Your task to perform on an android device: empty trash in google photos Image 0: 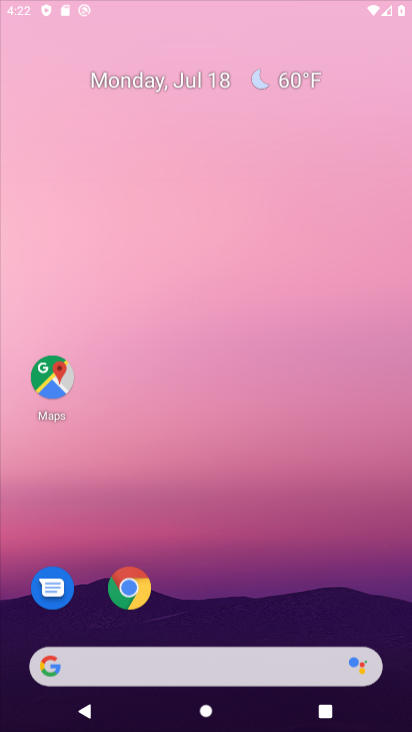
Step 0: press home button
Your task to perform on an android device: empty trash in google photos Image 1: 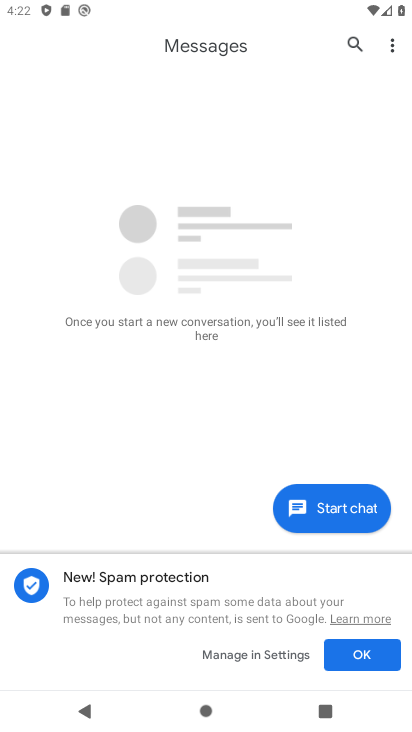
Step 1: drag from (199, 580) to (179, 57)
Your task to perform on an android device: empty trash in google photos Image 2: 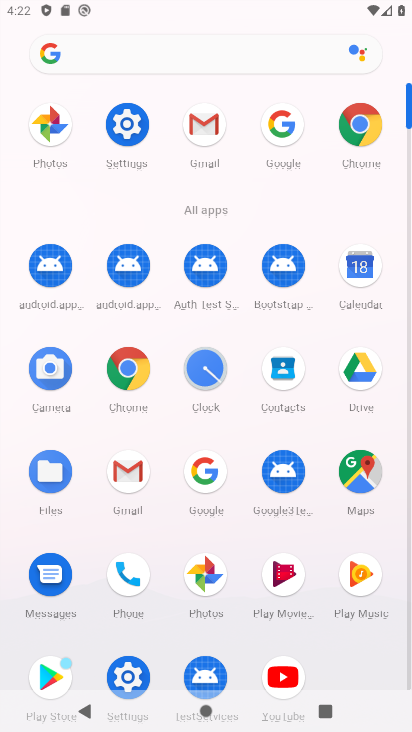
Step 2: click (205, 562)
Your task to perform on an android device: empty trash in google photos Image 3: 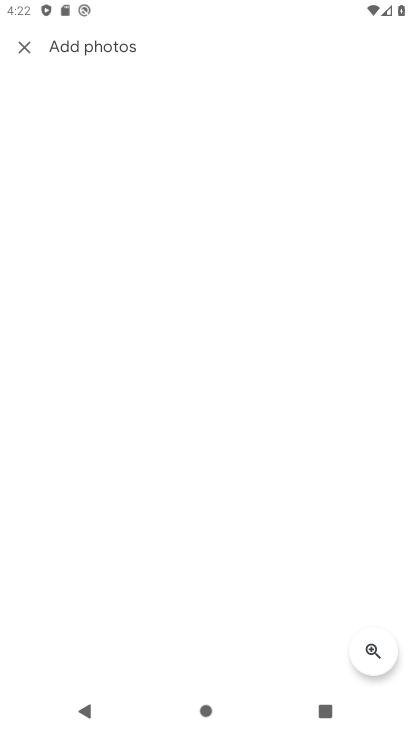
Step 3: click (24, 49)
Your task to perform on an android device: empty trash in google photos Image 4: 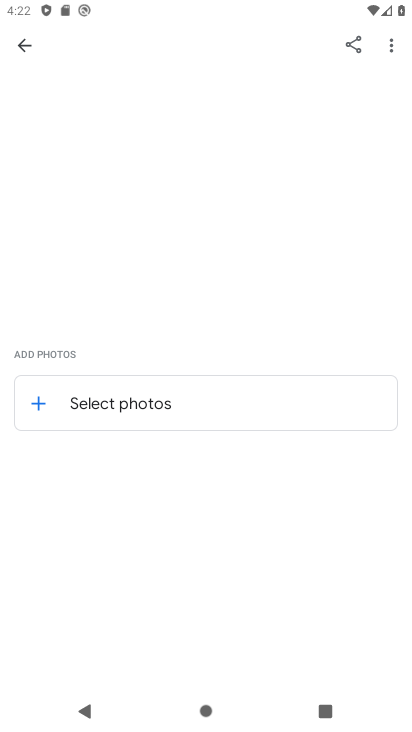
Step 4: click (25, 47)
Your task to perform on an android device: empty trash in google photos Image 5: 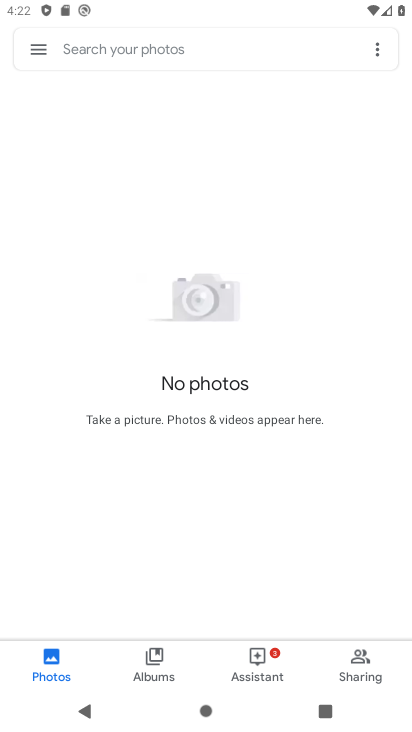
Step 5: click (37, 54)
Your task to perform on an android device: empty trash in google photos Image 6: 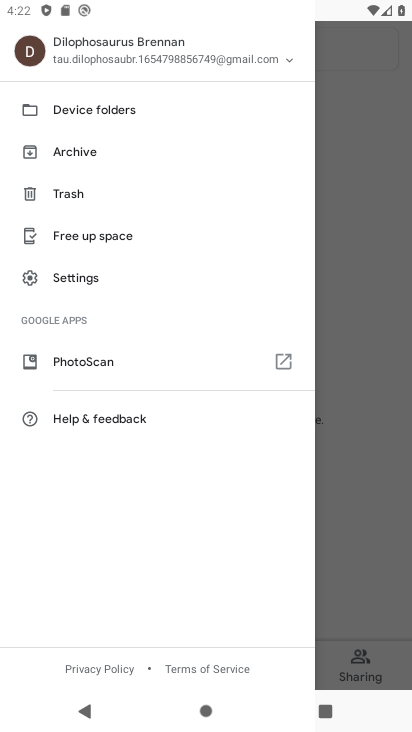
Step 6: click (89, 195)
Your task to perform on an android device: empty trash in google photos Image 7: 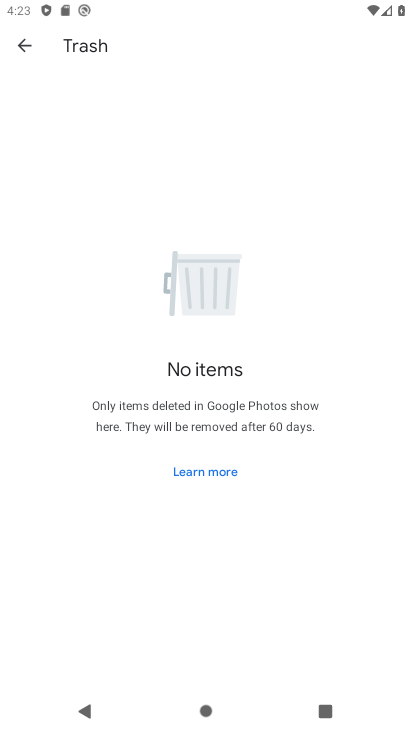
Step 7: task complete